Your task to perform on an android device: Search for pizza restaurants on Maps Image 0: 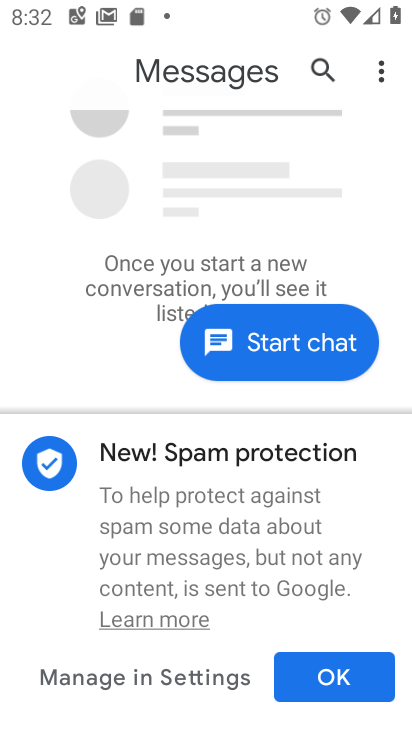
Step 0: press home button
Your task to perform on an android device: Search for pizza restaurants on Maps Image 1: 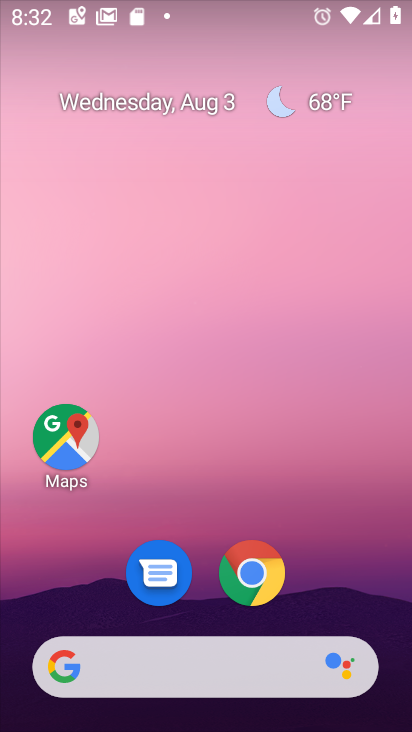
Step 1: click (65, 440)
Your task to perform on an android device: Search for pizza restaurants on Maps Image 2: 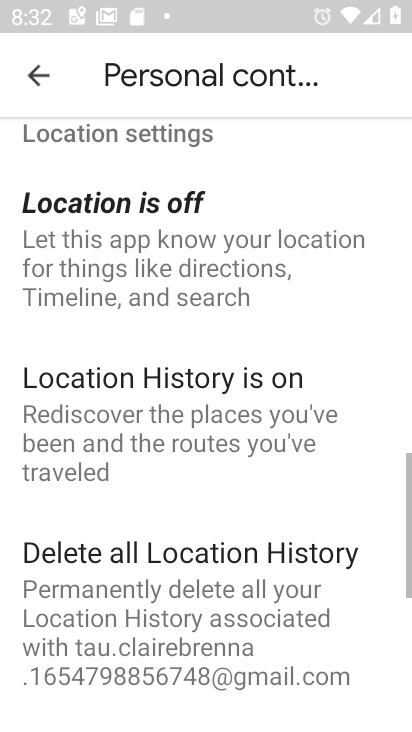
Step 2: click (39, 88)
Your task to perform on an android device: Search for pizza restaurants on Maps Image 3: 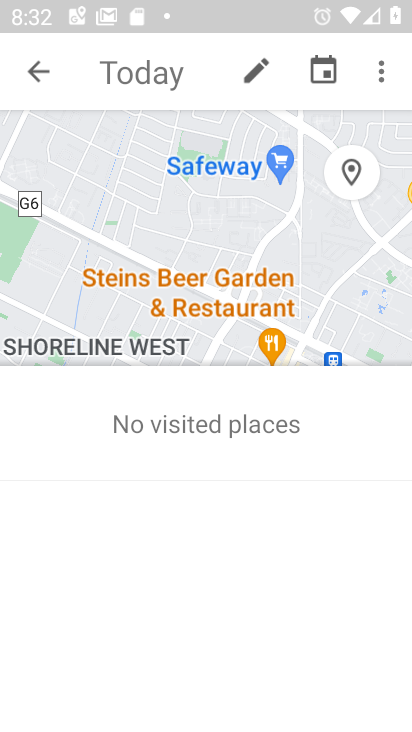
Step 3: click (39, 88)
Your task to perform on an android device: Search for pizza restaurants on Maps Image 4: 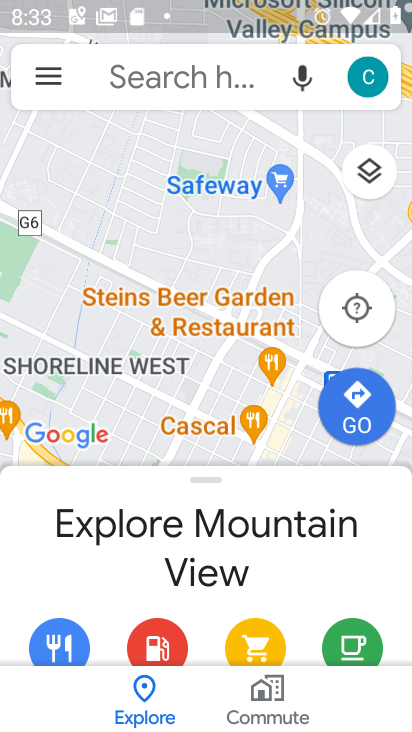
Step 4: click (142, 82)
Your task to perform on an android device: Search for pizza restaurants on Maps Image 5: 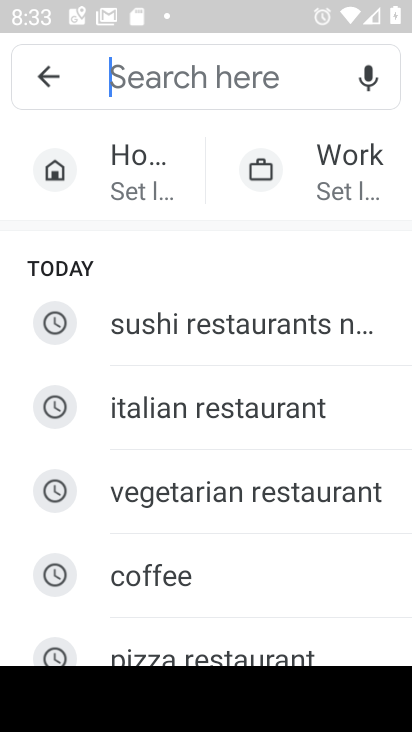
Step 5: type "pizza restaurants "
Your task to perform on an android device: Search for pizza restaurants on Maps Image 6: 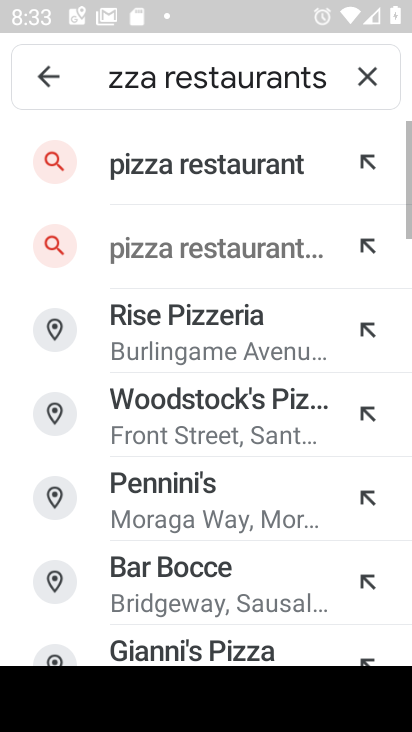
Step 6: click (207, 160)
Your task to perform on an android device: Search for pizza restaurants on Maps Image 7: 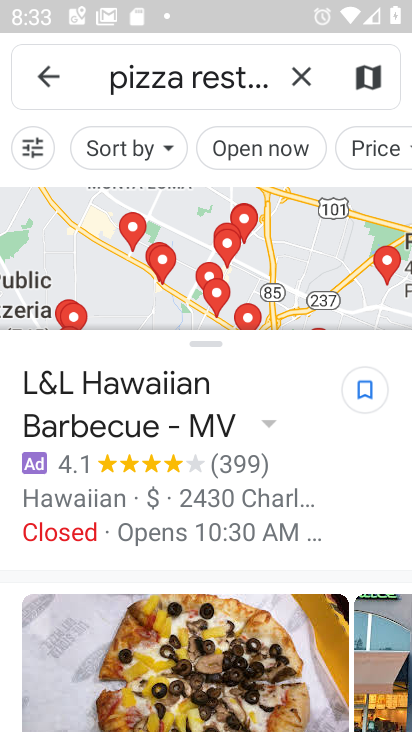
Step 7: task complete